Your task to perform on an android device: Is it going to rain today? Image 0: 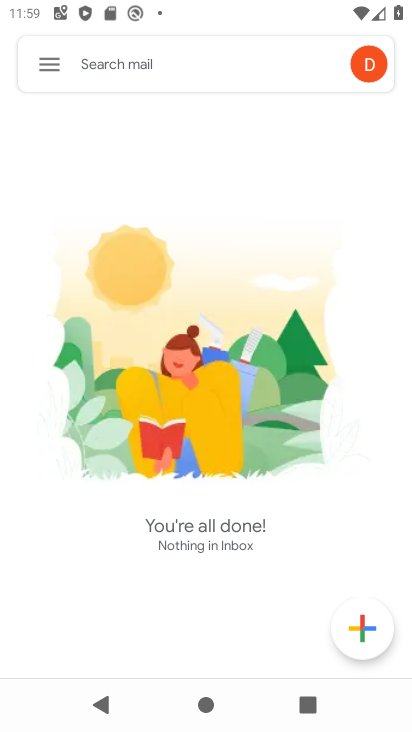
Step 0: press home button
Your task to perform on an android device: Is it going to rain today? Image 1: 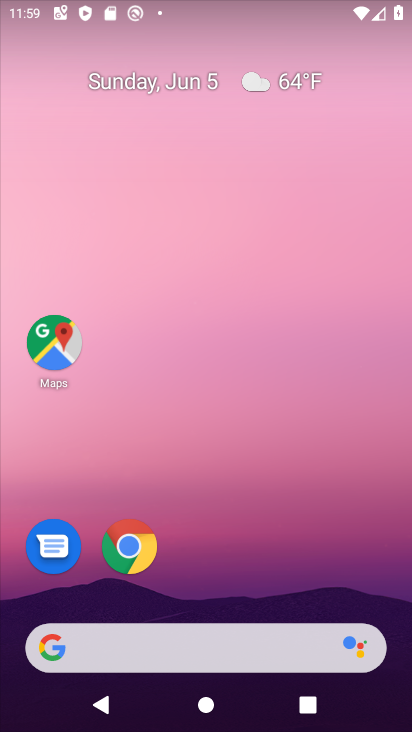
Step 1: click (137, 536)
Your task to perform on an android device: Is it going to rain today? Image 2: 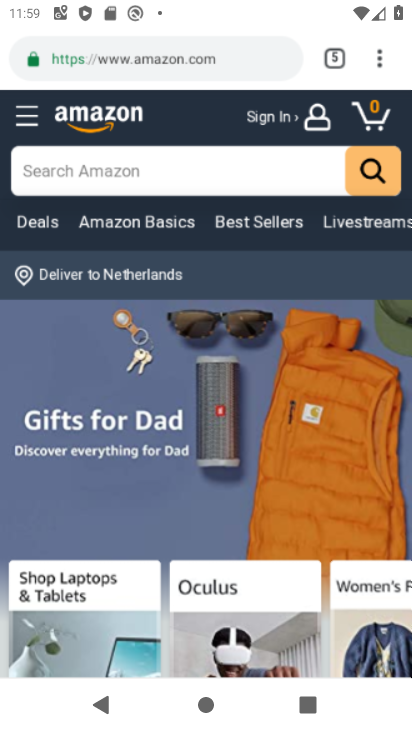
Step 2: click (374, 55)
Your task to perform on an android device: Is it going to rain today? Image 3: 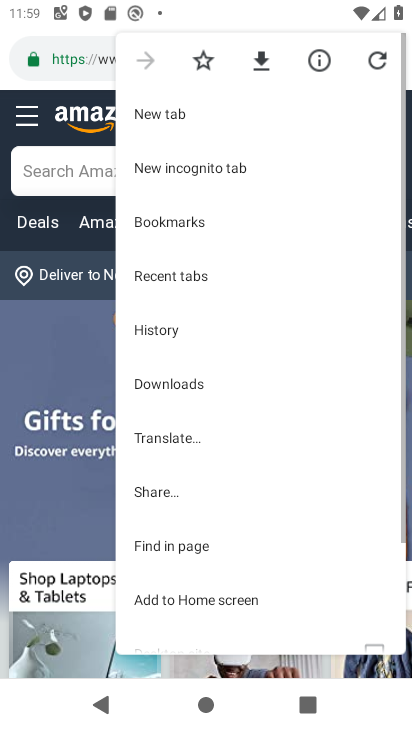
Step 3: click (182, 110)
Your task to perform on an android device: Is it going to rain today? Image 4: 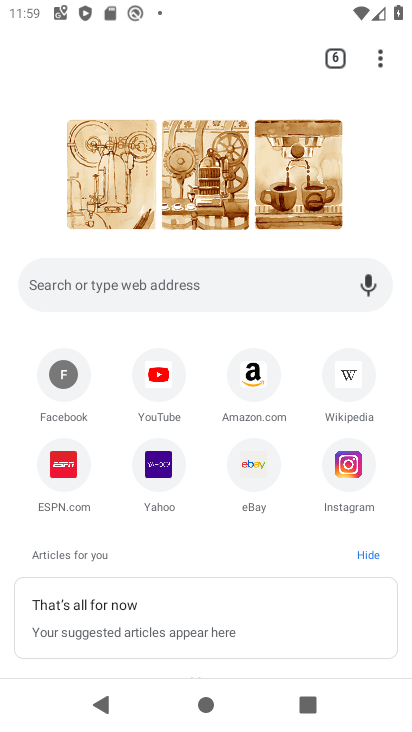
Step 4: click (102, 269)
Your task to perform on an android device: Is it going to rain today? Image 5: 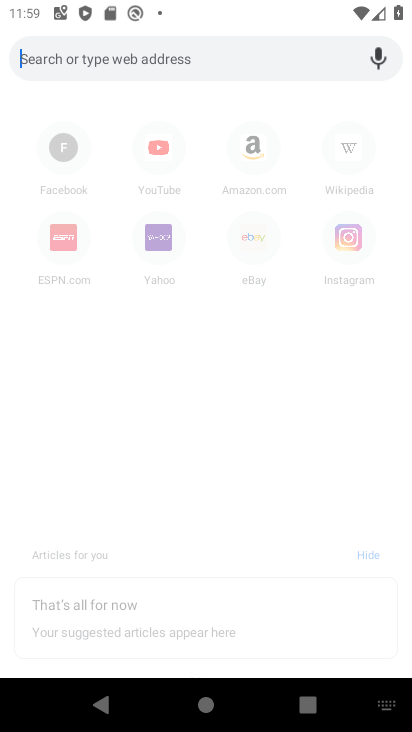
Step 5: type "Is it going to rain today?"
Your task to perform on an android device: Is it going to rain today? Image 6: 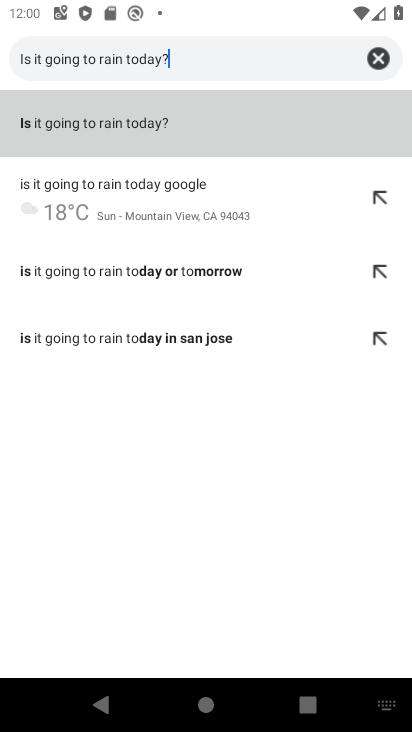
Step 6: click (137, 121)
Your task to perform on an android device: Is it going to rain today? Image 7: 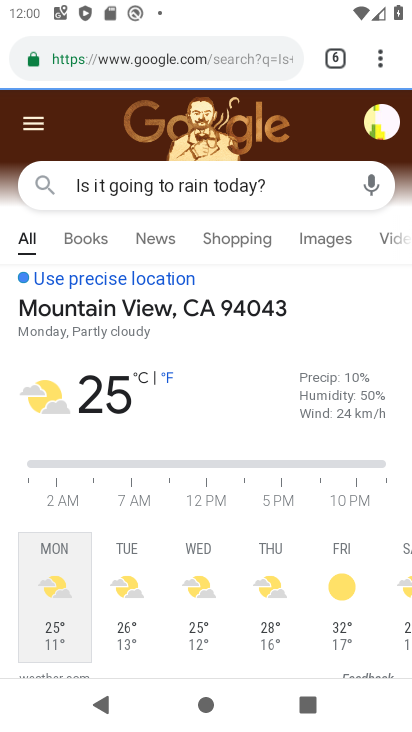
Step 7: task complete